Your task to perform on an android device: Open Chrome and go to settings Image 0: 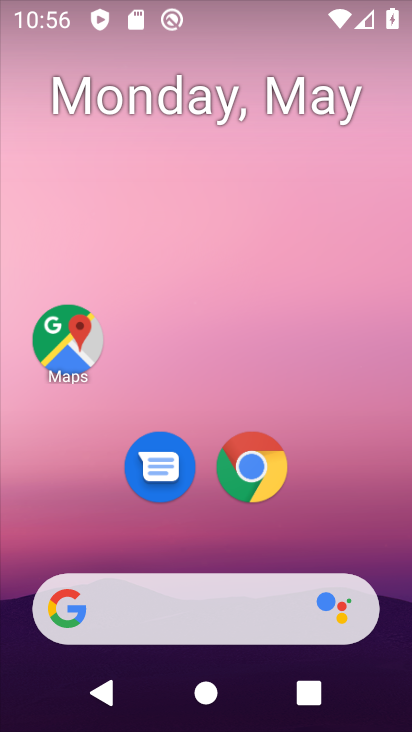
Step 0: drag from (314, 523) to (340, 49)
Your task to perform on an android device: Open Chrome and go to settings Image 1: 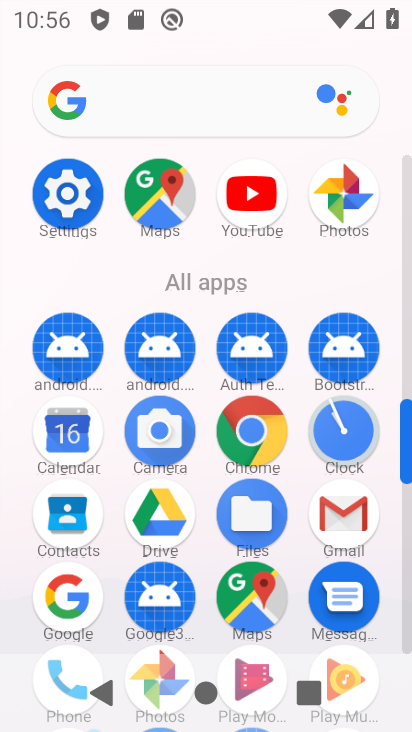
Step 1: click (264, 243)
Your task to perform on an android device: Open Chrome and go to settings Image 2: 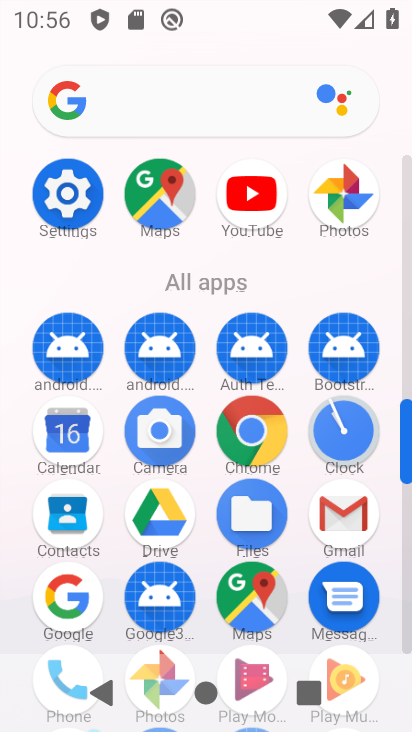
Step 2: click (258, 222)
Your task to perform on an android device: Open Chrome and go to settings Image 3: 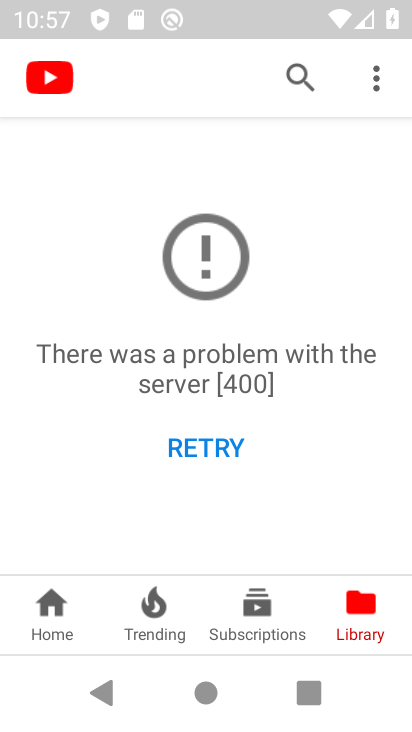
Step 3: press home button
Your task to perform on an android device: Open Chrome and go to settings Image 4: 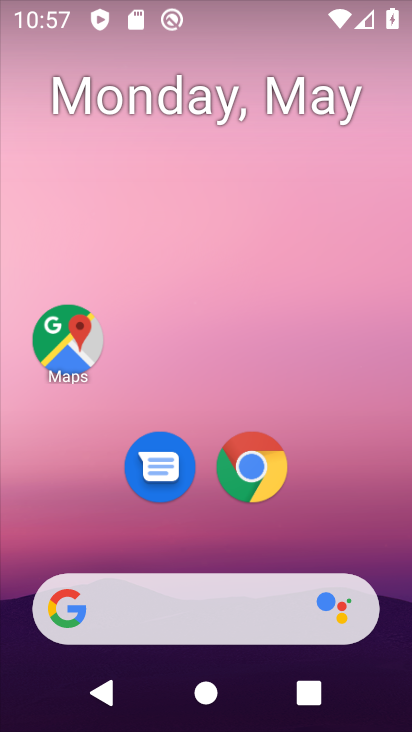
Step 4: click (264, 499)
Your task to perform on an android device: Open Chrome and go to settings Image 5: 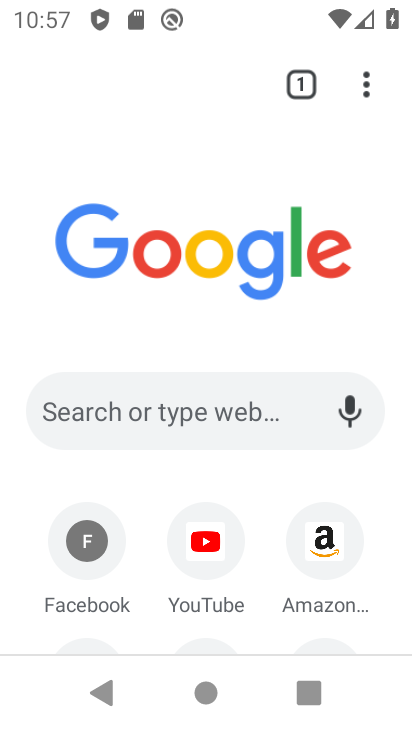
Step 5: click (371, 82)
Your task to perform on an android device: Open Chrome and go to settings Image 6: 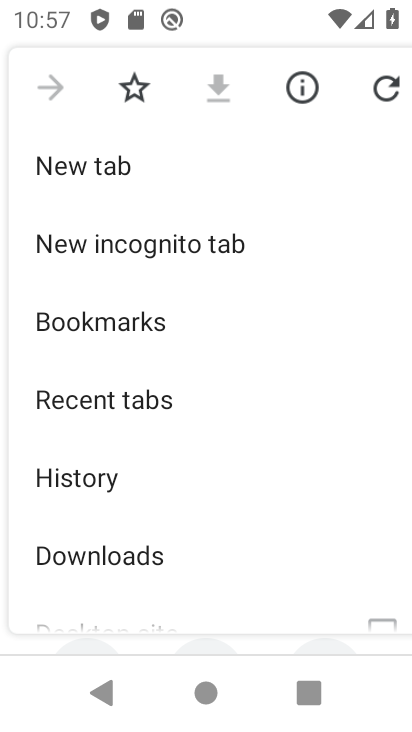
Step 6: drag from (176, 563) to (196, 296)
Your task to perform on an android device: Open Chrome and go to settings Image 7: 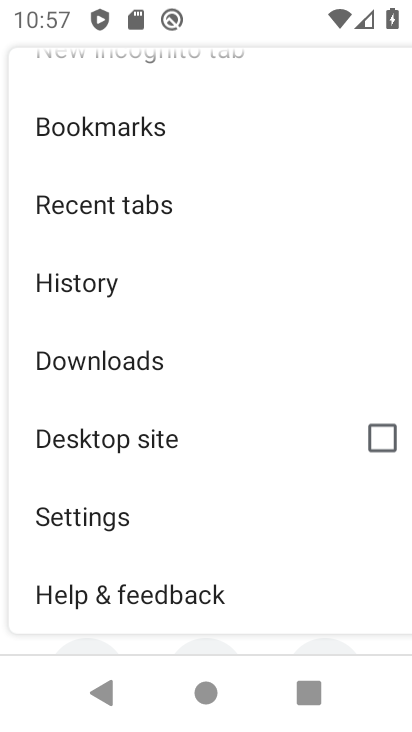
Step 7: click (184, 518)
Your task to perform on an android device: Open Chrome and go to settings Image 8: 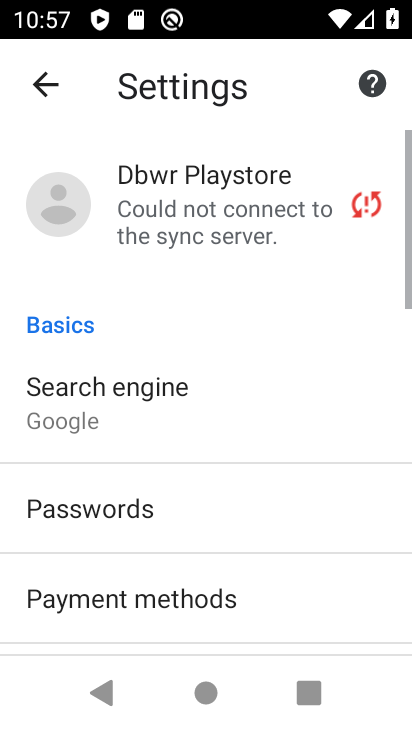
Step 8: task complete